Your task to perform on an android device: What's US dollar exchange rateagainst the Mexican Peso? Image 0: 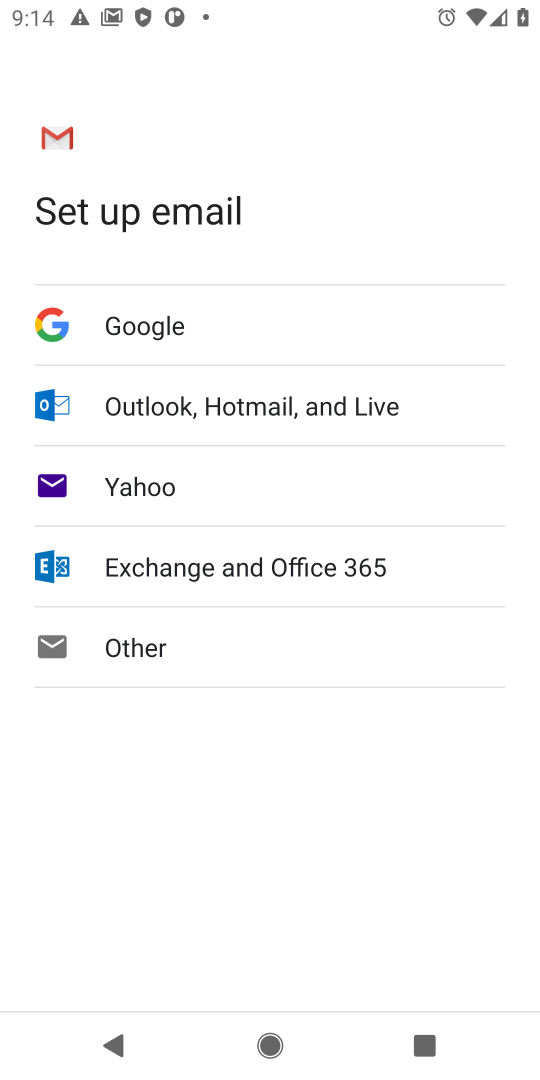
Step 0: press home button
Your task to perform on an android device: What's US dollar exchange rateagainst the Mexican Peso? Image 1: 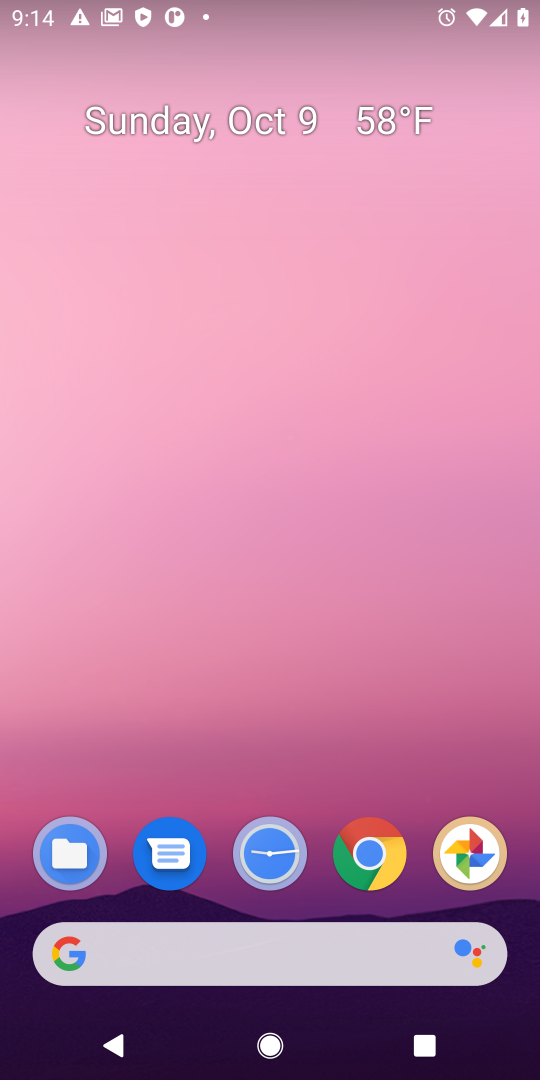
Step 1: click (375, 852)
Your task to perform on an android device: What's US dollar exchange rateagainst the Mexican Peso? Image 2: 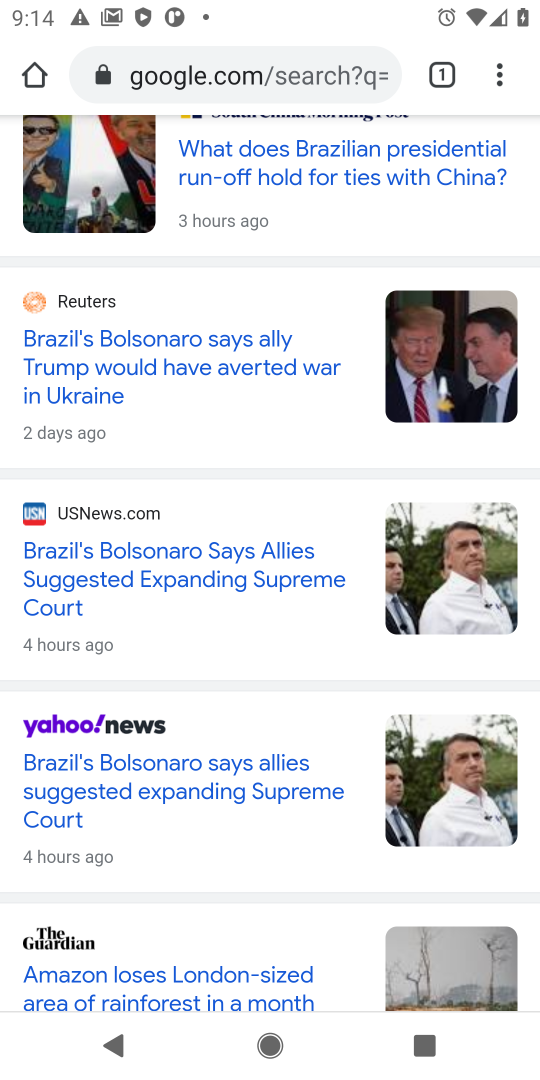
Step 2: click (199, 78)
Your task to perform on an android device: What's US dollar exchange rateagainst the Mexican Peso? Image 3: 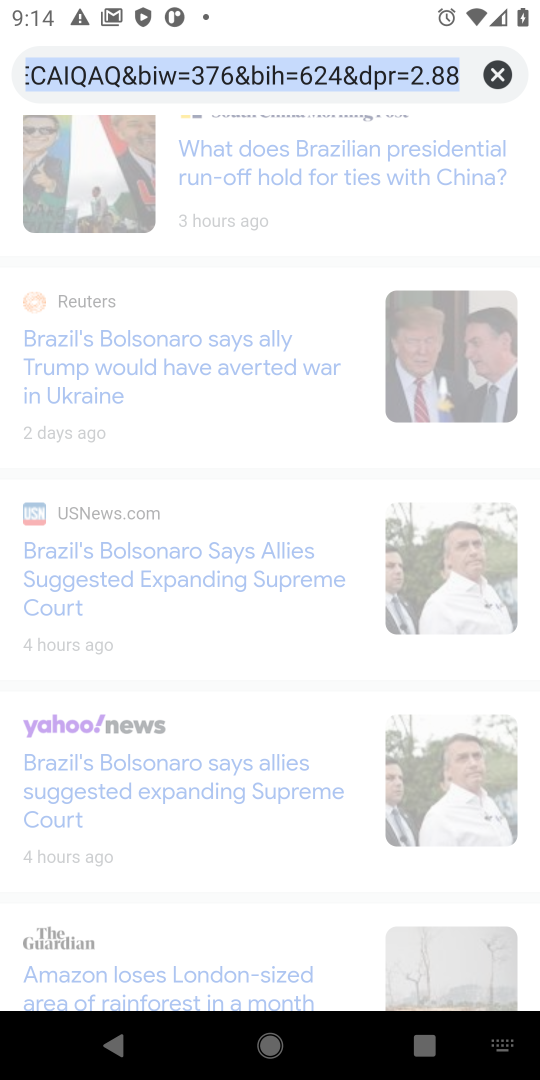
Step 3: type "usd to peso"
Your task to perform on an android device: What's US dollar exchange rateagainst the Mexican Peso? Image 4: 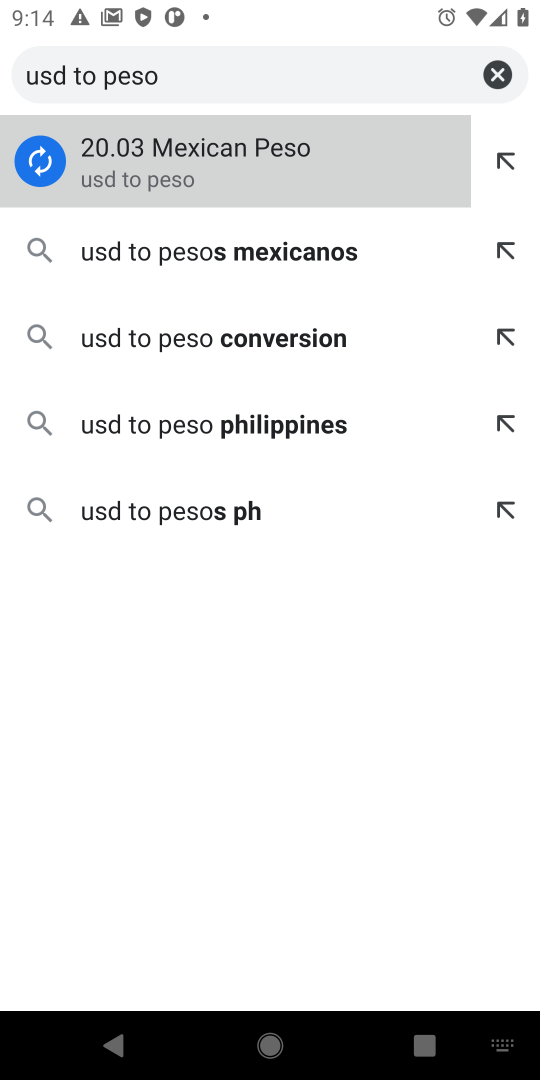
Step 4: click (262, 152)
Your task to perform on an android device: What's US dollar exchange rateagainst the Mexican Peso? Image 5: 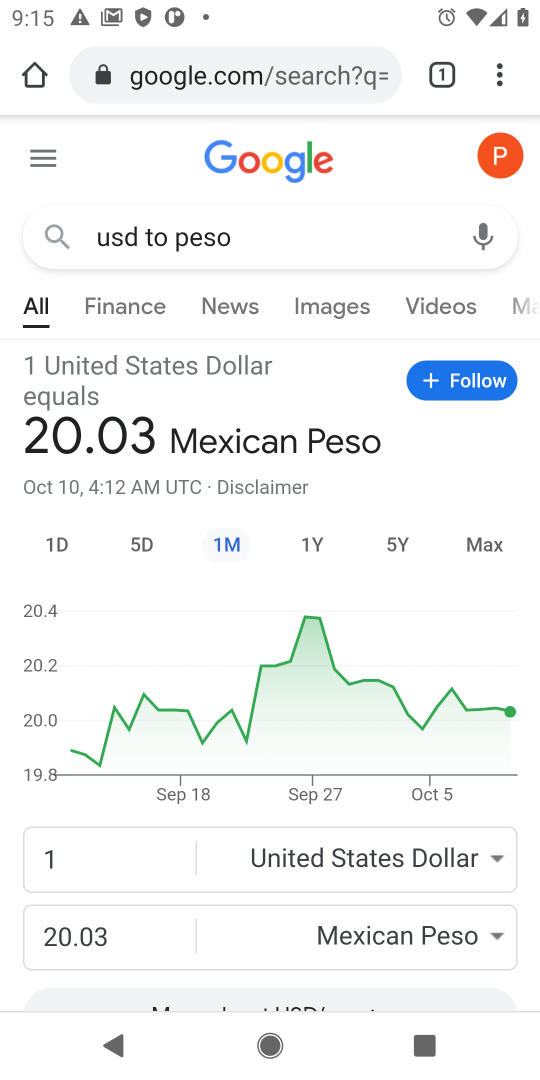
Step 5: task complete